Your task to perform on an android device: check android version Image 0: 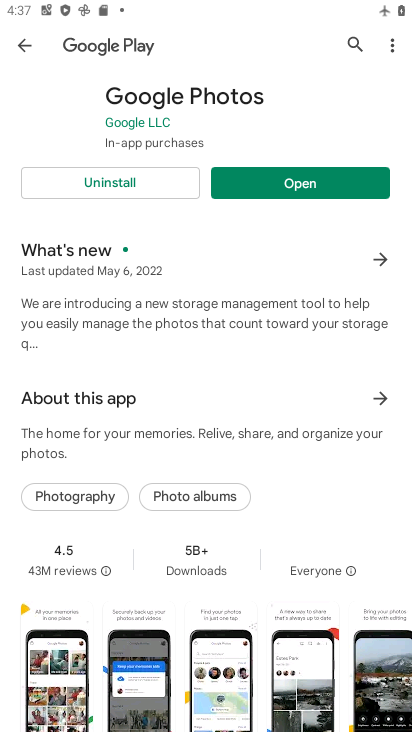
Step 0: drag from (201, 658) to (203, 181)
Your task to perform on an android device: check android version Image 1: 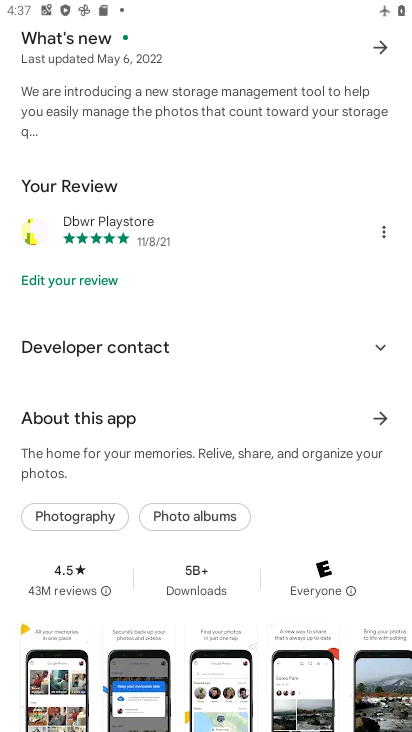
Step 1: press home button
Your task to perform on an android device: check android version Image 2: 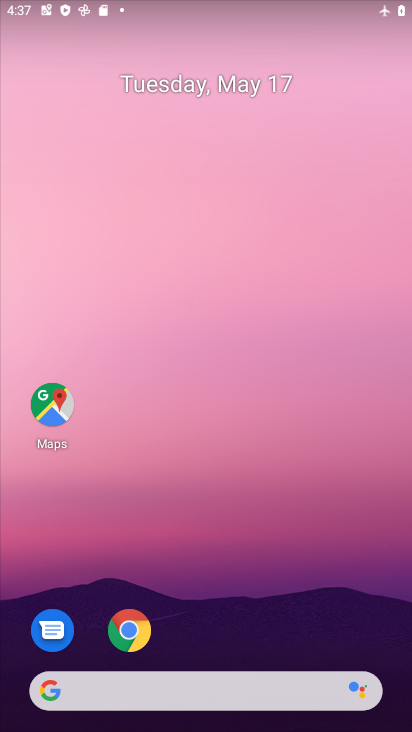
Step 2: drag from (212, 723) to (236, 74)
Your task to perform on an android device: check android version Image 3: 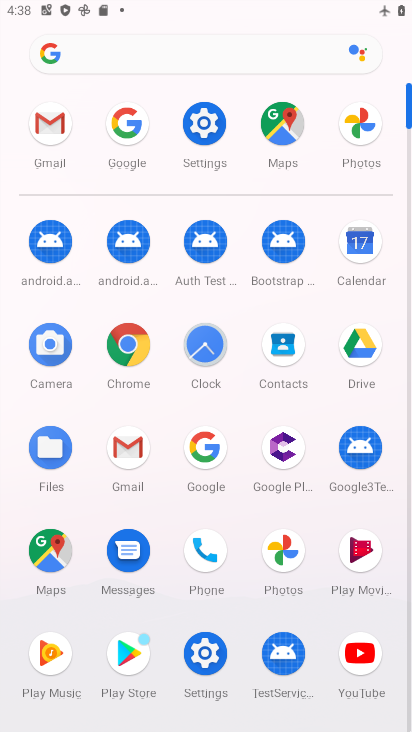
Step 3: click (202, 127)
Your task to perform on an android device: check android version Image 4: 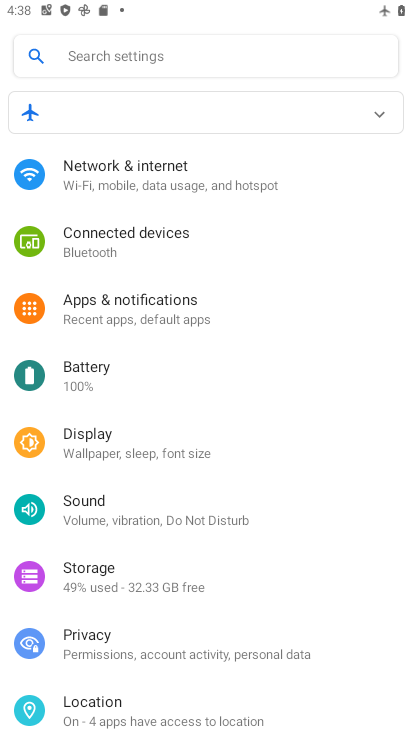
Step 4: drag from (155, 681) to (147, 275)
Your task to perform on an android device: check android version Image 5: 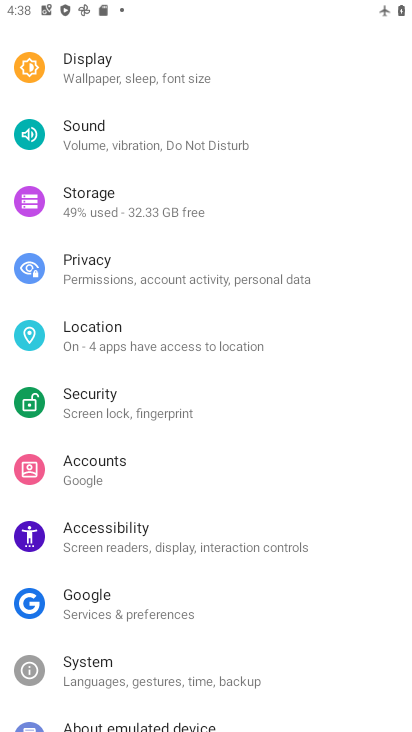
Step 5: drag from (121, 695) to (148, 189)
Your task to perform on an android device: check android version Image 6: 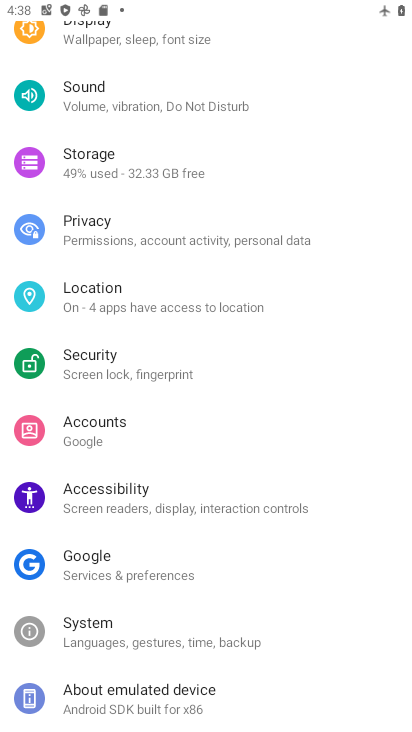
Step 6: click (115, 686)
Your task to perform on an android device: check android version Image 7: 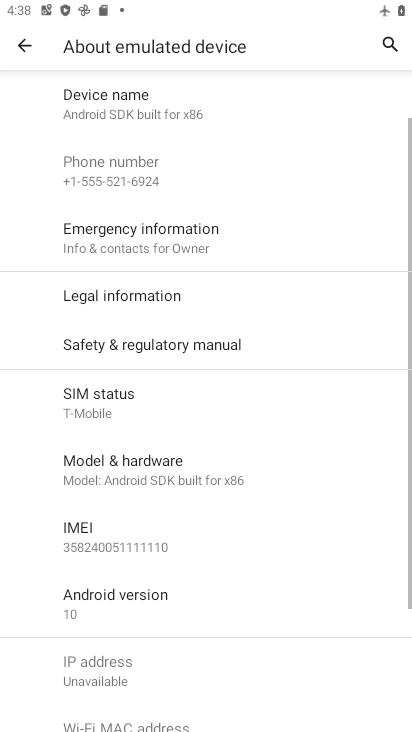
Step 7: drag from (122, 703) to (147, 162)
Your task to perform on an android device: check android version Image 8: 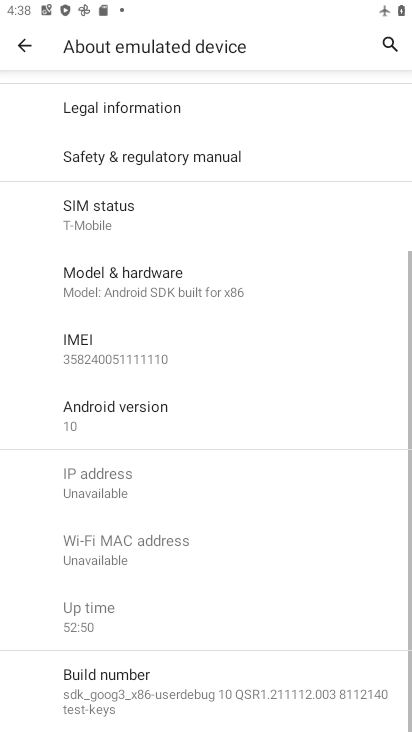
Step 8: click (119, 404)
Your task to perform on an android device: check android version Image 9: 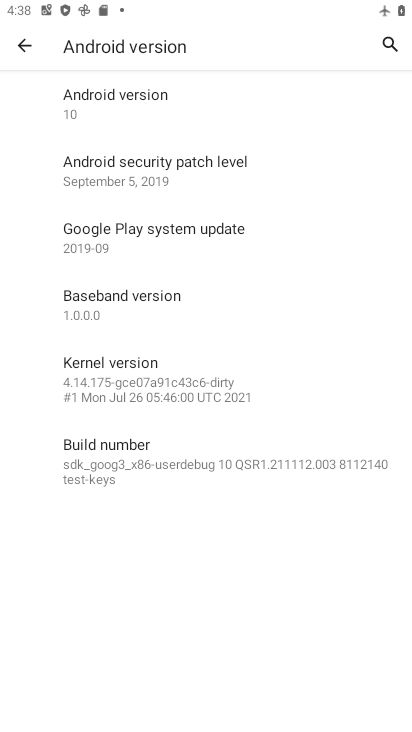
Step 9: task complete